Your task to perform on an android device: Go to display settings Image 0: 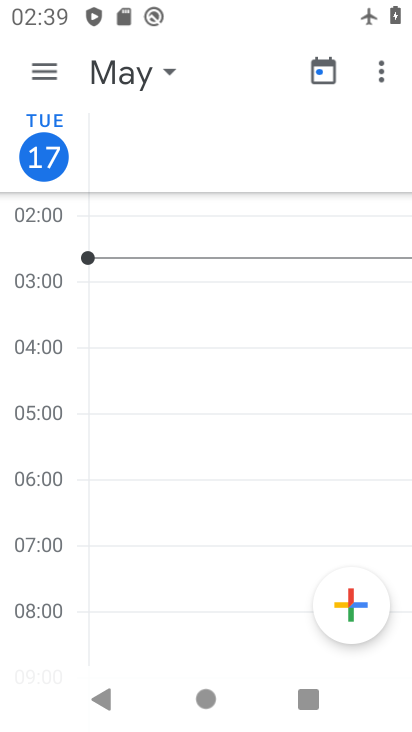
Step 0: press home button
Your task to perform on an android device: Go to display settings Image 1: 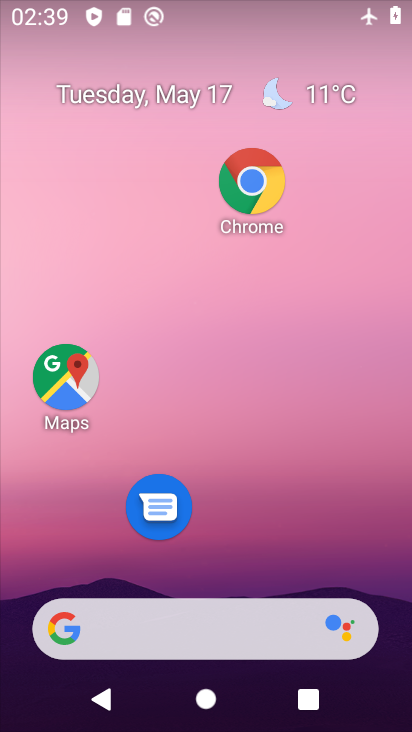
Step 1: drag from (234, 561) to (249, 118)
Your task to perform on an android device: Go to display settings Image 2: 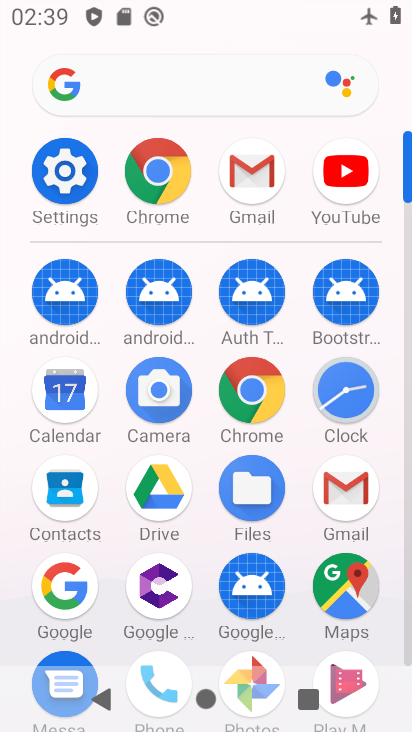
Step 2: click (76, 179)
Your task to perform on an android device: Go to display settings Image 3: 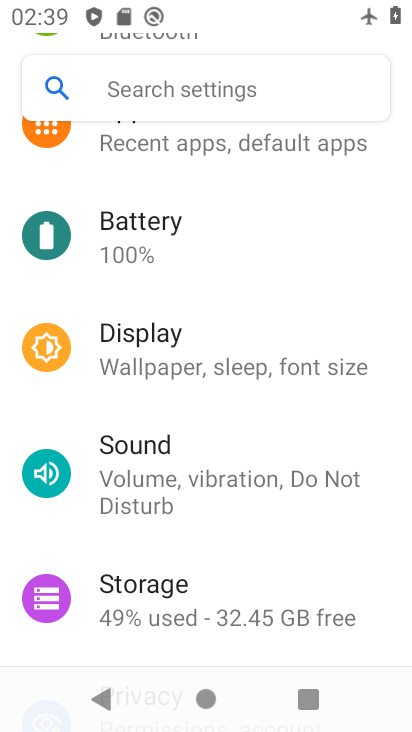
Step 3: click (159, 349)
Your task to perform on an android device: Go to display settings Image 4: 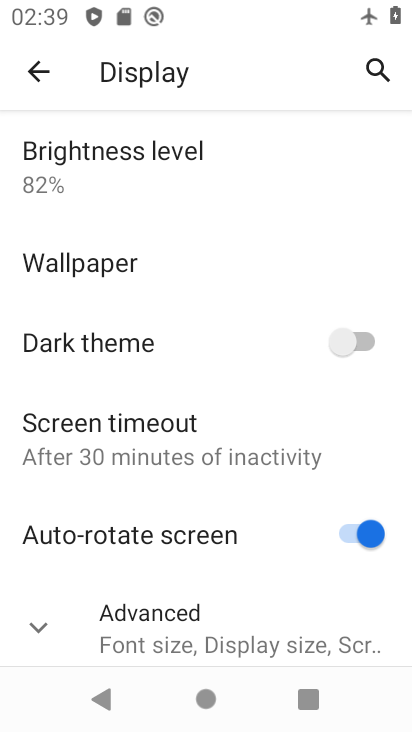
Step 4: task complete